Your task to perform on an android device: turn on location history Image 0: 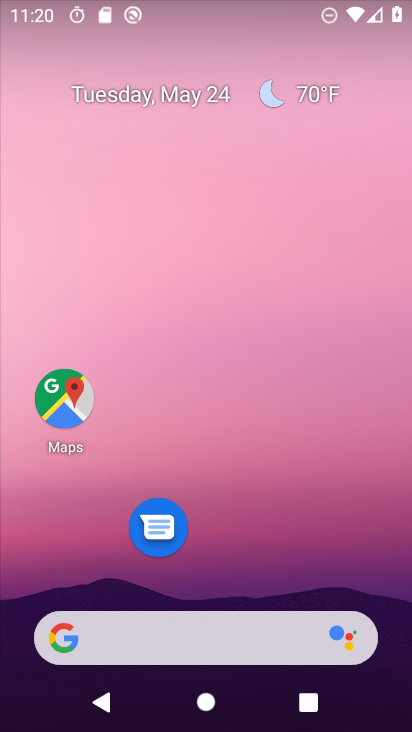
Step 0: drag from (258, 551) to (285, 14)
Your task to perform on an android device: turn on location history Image 1: 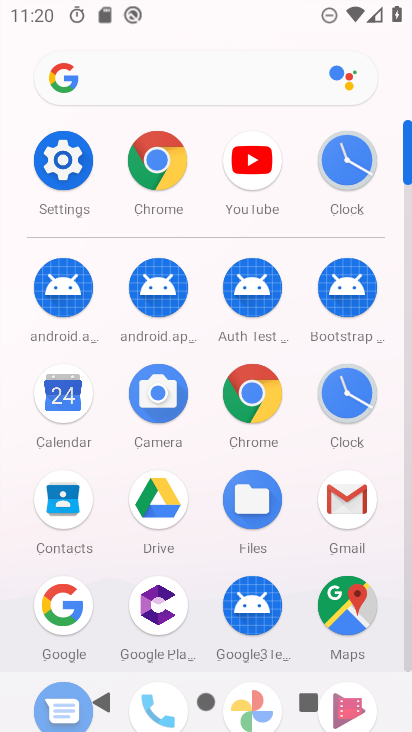
Step 1: click (69, 157)
Your task to perform on an android device: turn on location history Image 2: 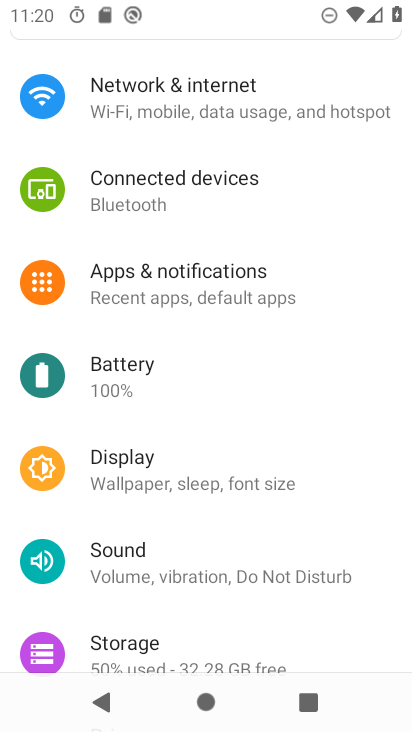
Step 2: drag from (211, 163) to (242, 80)
Your task to perform on an android device: turn on location history Image 3: 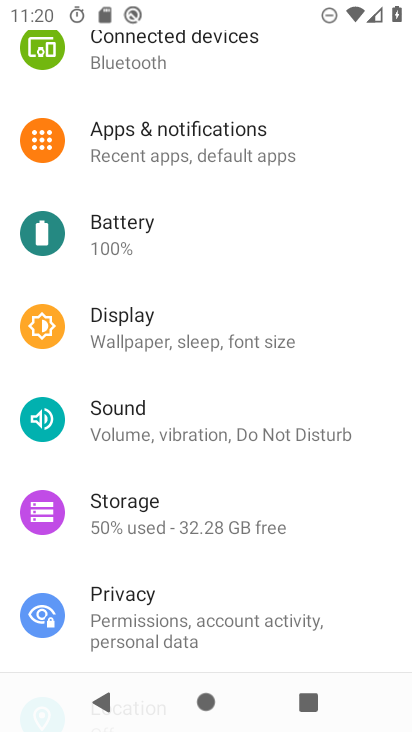
Step 3: drag from (196, 594) to (210, 288)
Your task to perform on an android device: turn on location history Image 4: 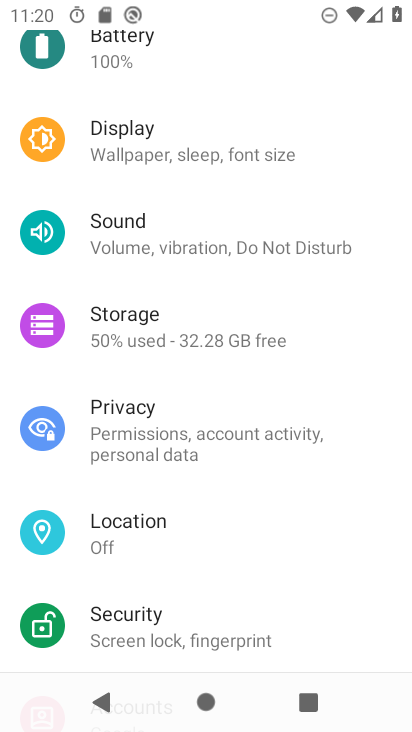
Step 4: click (129, 533)
Your task to perform on an android device: turn on location history Image 5: 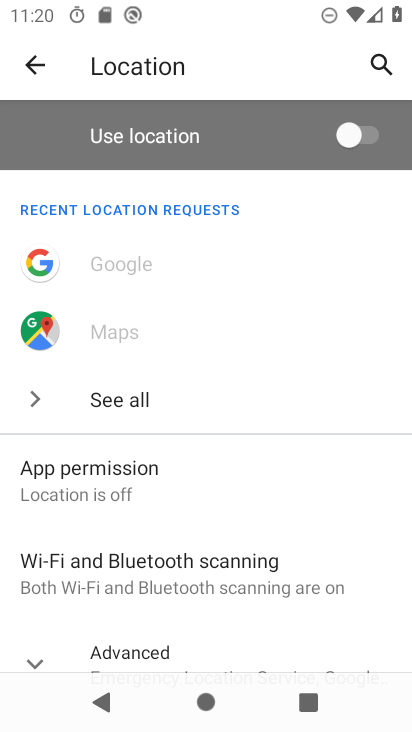
Step 5: drag from (127, 526) to (157, 123)
Your task to perform on an android device: turn on location history Image 6: 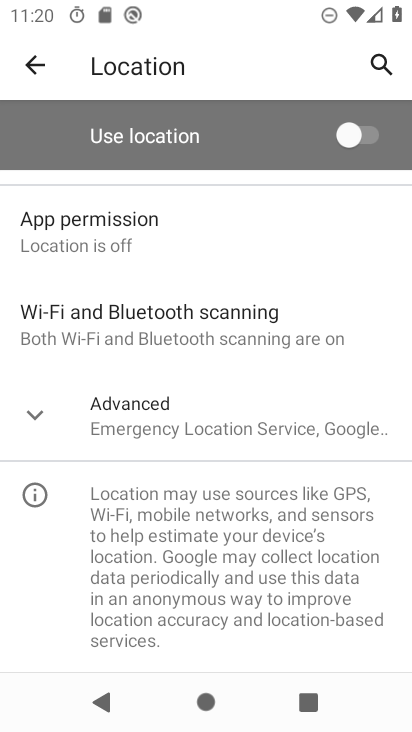
Step 6: click (129, 421)
Your task to perform on an android device: turn on location history Image 7: 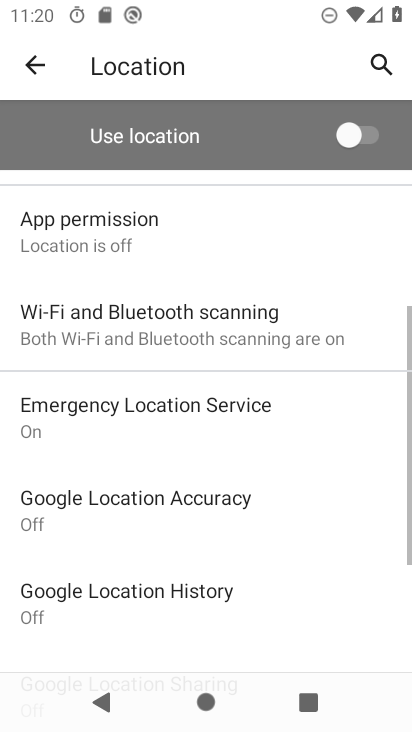
Step 7: drag from (243, 554) to (249, 428)
Your task to perform on an android device: turn on location history Image 8: 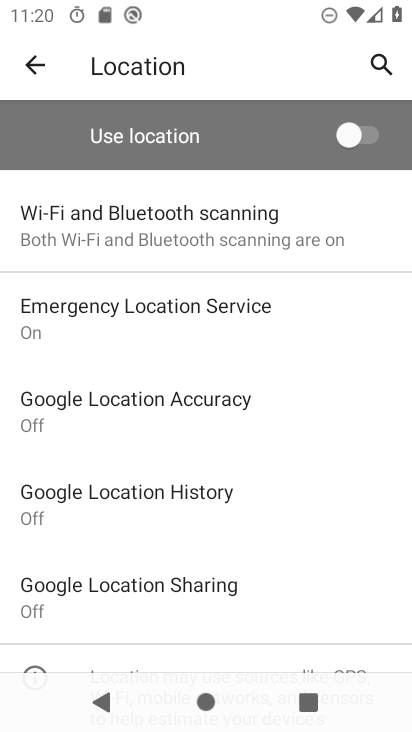
Step 8: click (110, 484)
Your task to perform on an android device: turn on location history Image 9: 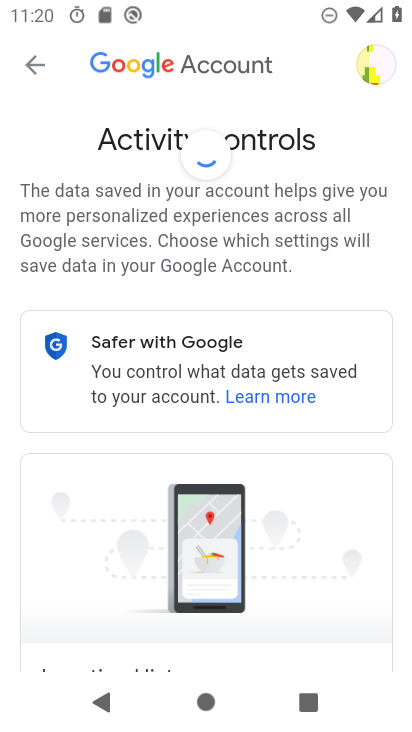
Step 9: task complete